Your task to perform on an android device: What's the weather? Image 0: 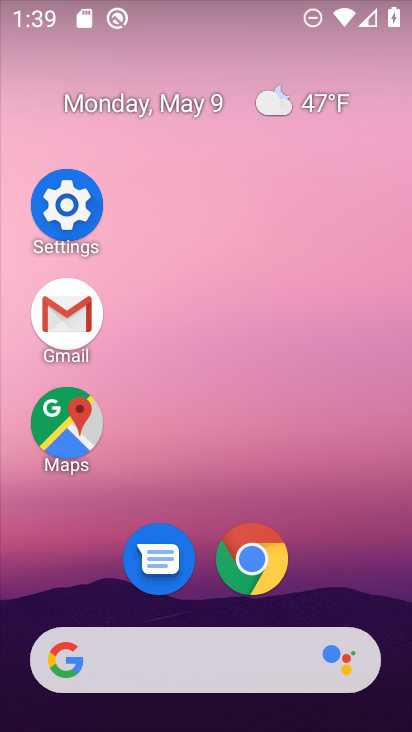
Step 0: drag from (309, 612) to (266, 202)
Your task to perform on an android device: What's the weather? Image 1: 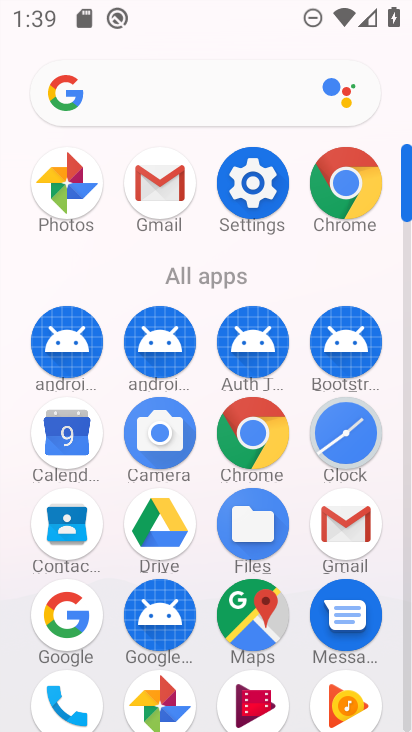
Step 1: drag from (79, 617) to (190, 328)
Your task to perform on an android device: What's the weather? Image 2: 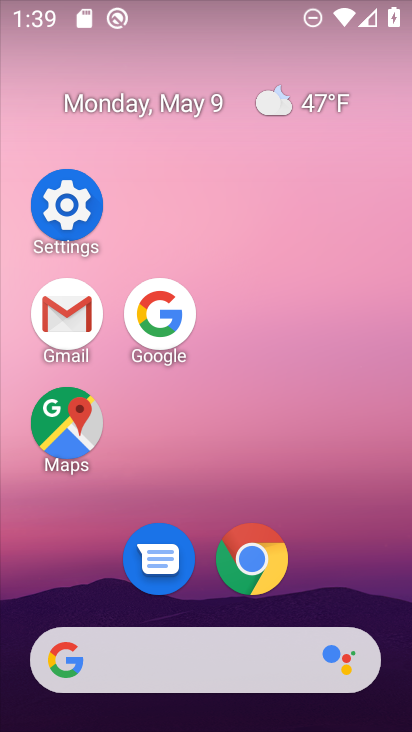
Step 2: click (169, 319)
Your task to perform on an android device: What's the weather? Image 3: 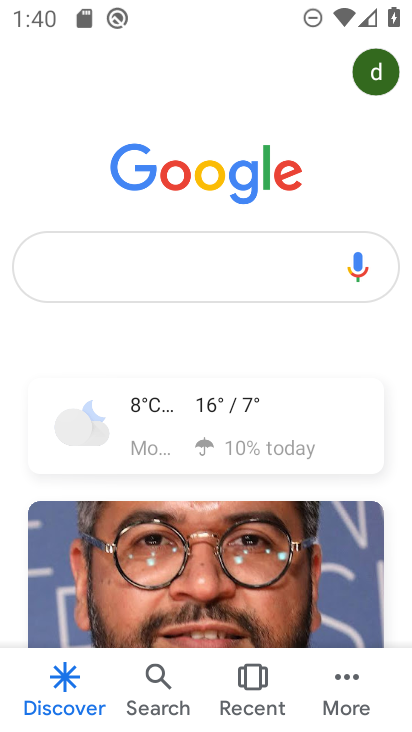
Step 3: click (153, 414)
Your task to perform on an android device: What's the weather? Image 4: 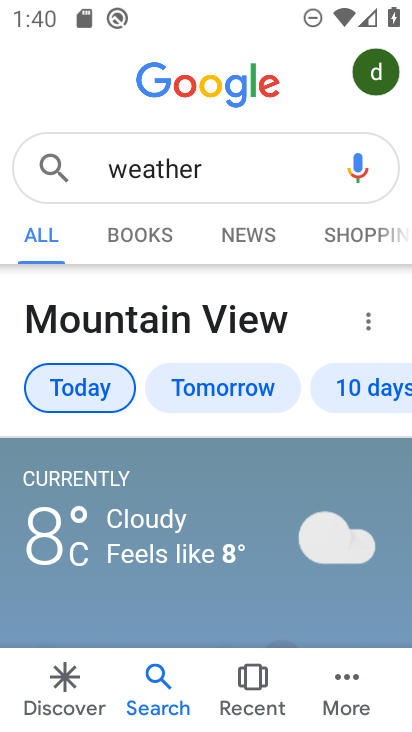
Step 4: task complete